Your task to perform on an android device: Go to network settings Image 0: 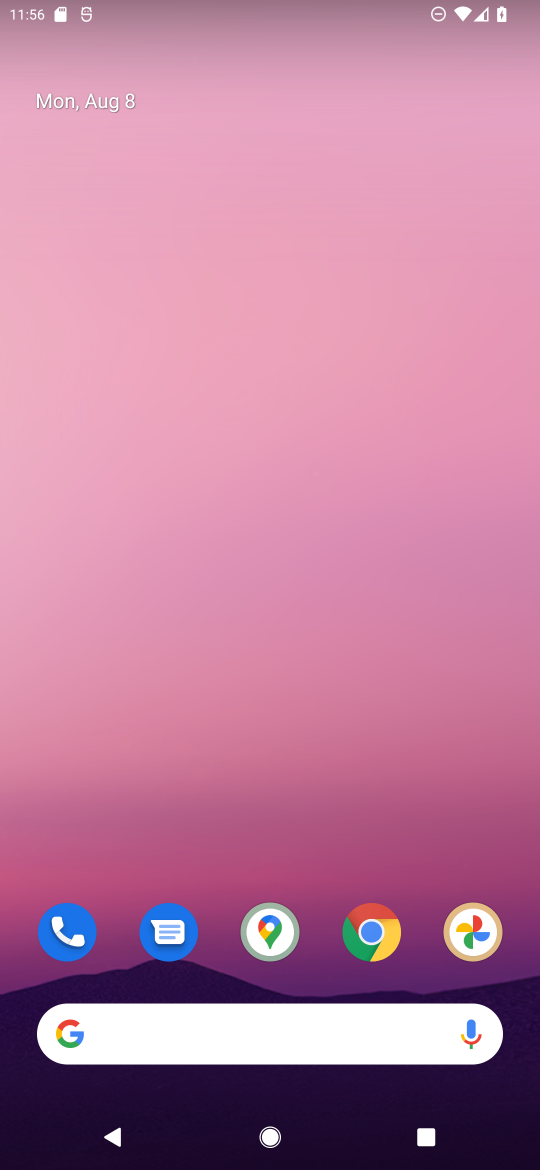
Step 0: drag from (355, 17) to (450, 1169)
Your task to perform on an android device: Go to network settings Image 1: 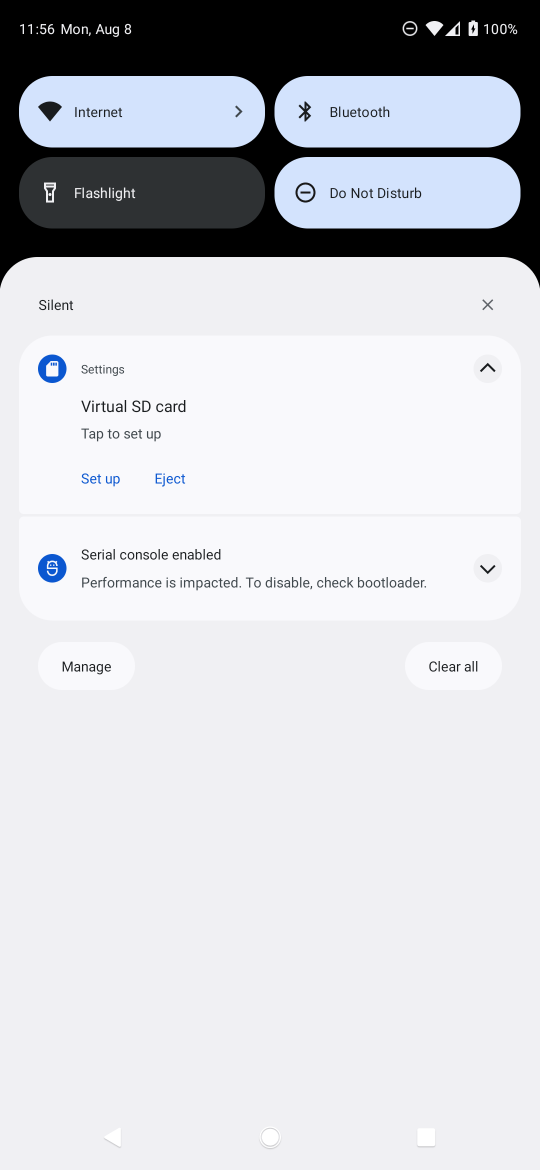
Step 1: click (235, 101)
Your task to perform on an android device: Go to network settings Image 2: 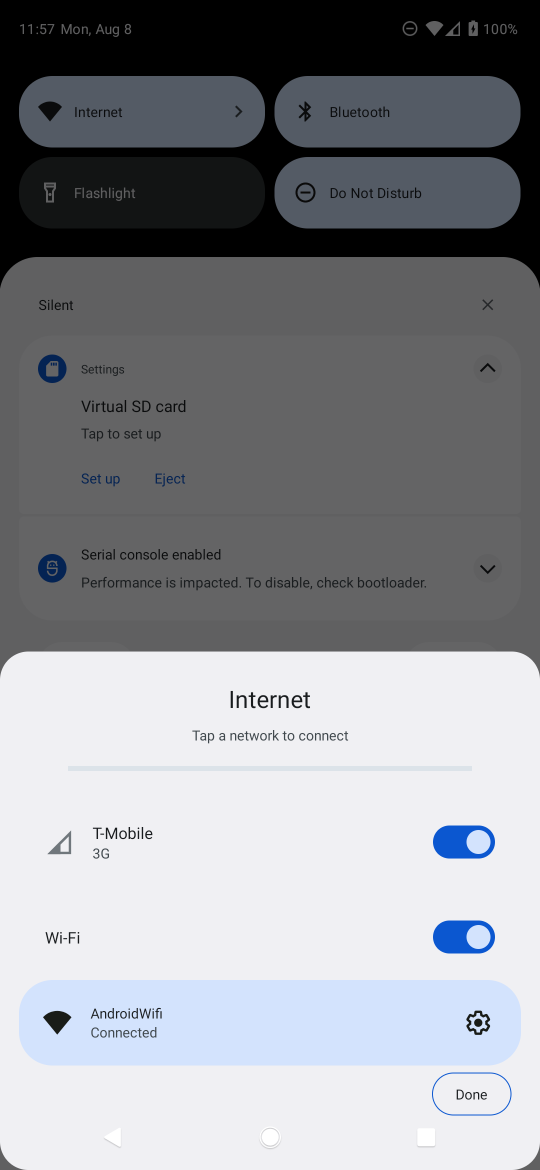
Step 2: click (456, 1021)
Your task to perform on an android device: Go to network settings Image 3: 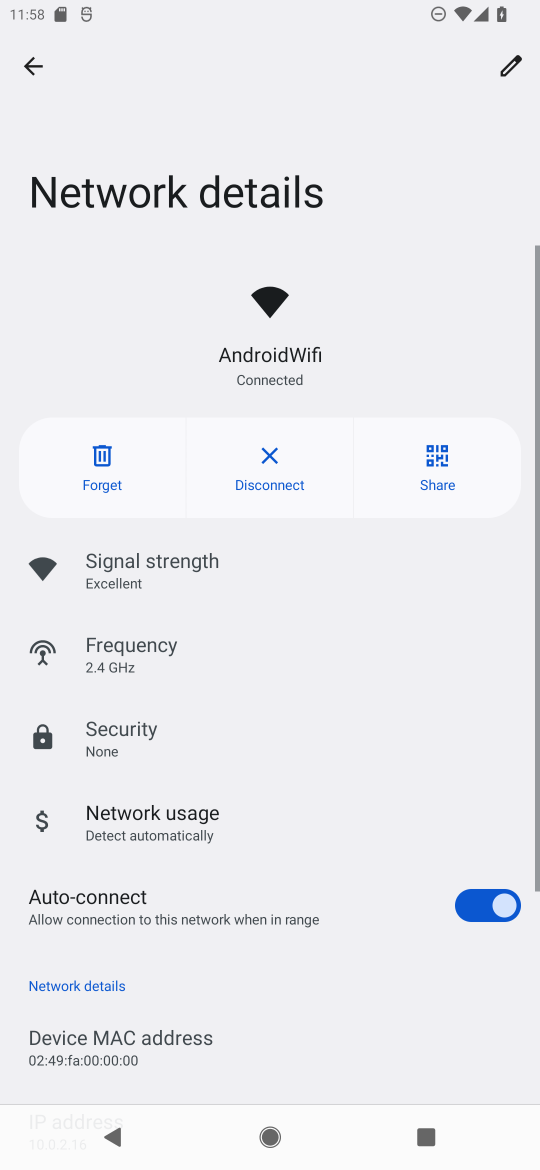
Step 3: click (249, 824)
Your task to perform on an android device: Go to network settings Image 4: 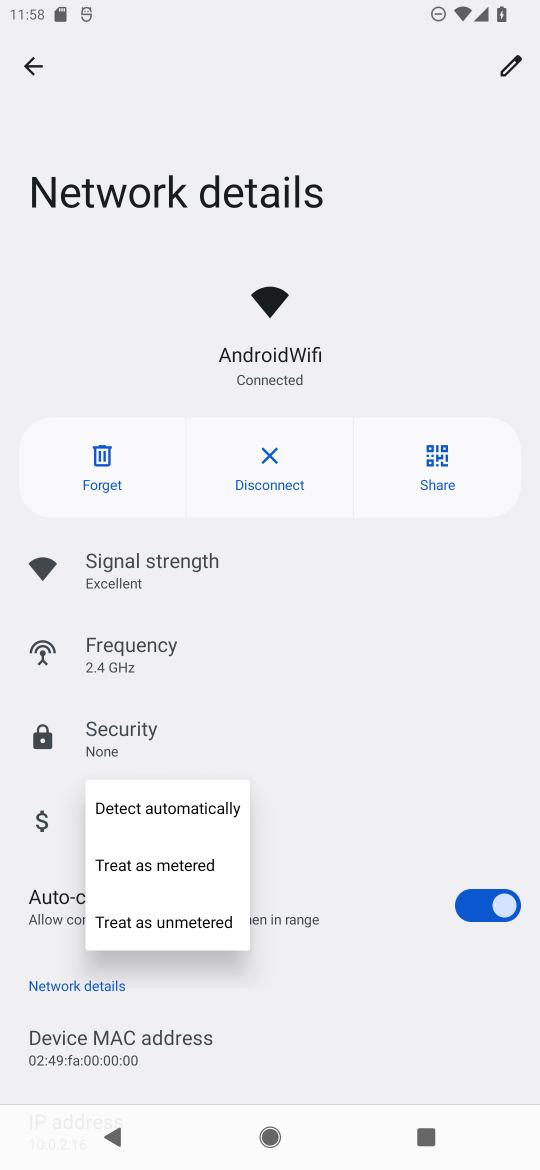
Step 4: task complete